Your task to perform on an android device: Open network settings Image 0: 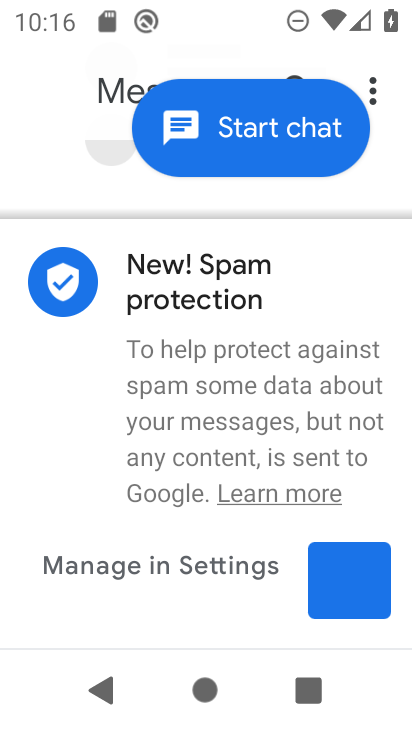
Step 0: press home button
Your task to perform on an android device: Open network settings Image 1: 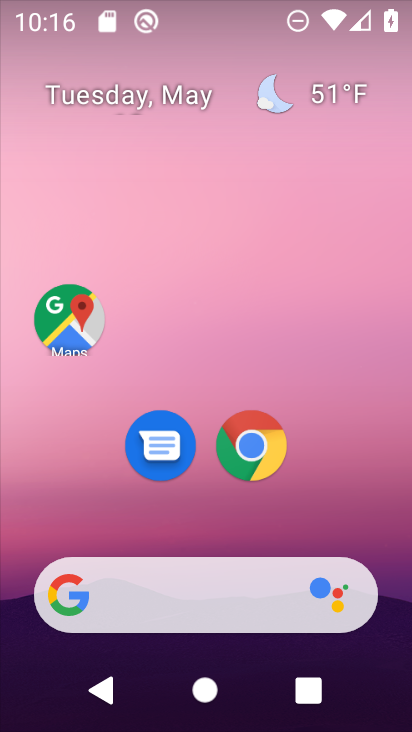
Step 1: drag from (146, 577) to (128, 178)
Your task to perform on an android device: Open network settings Image 2: 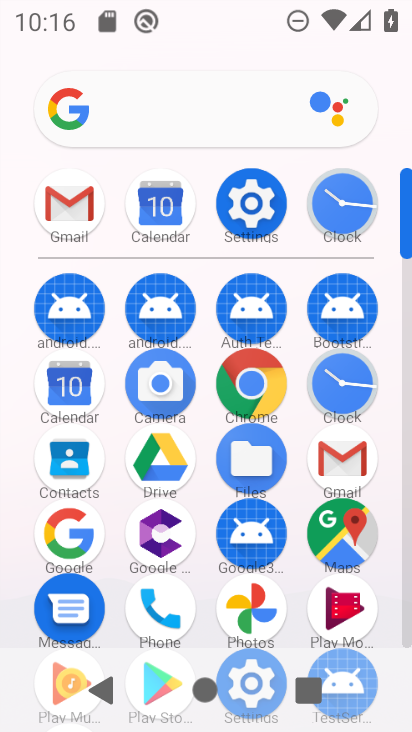
Step 2: click (259, 200)
Your task to perform on an android device: Open network settings Image 3: 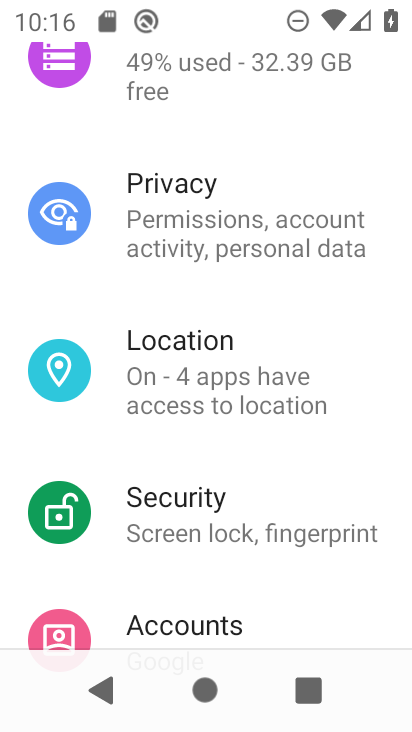
Step 3: drag from (259, 200) to (303, 445)
Your task to perform on an android device: Open network settings Image 4: 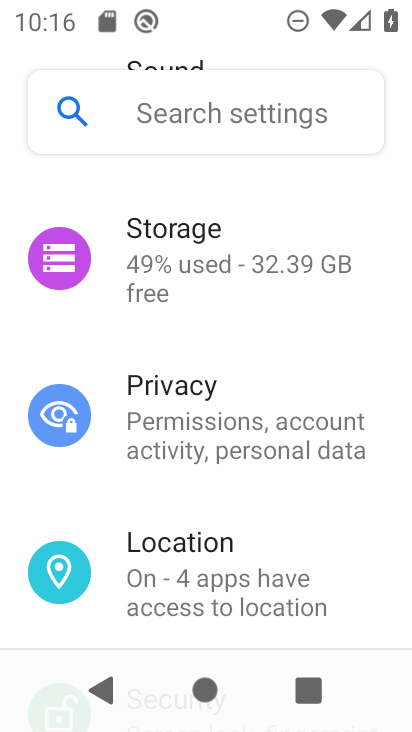
Step 4: drag from (231, 196) to (269, 606)
Your task to perform on an android device: Open network settings Image 5: 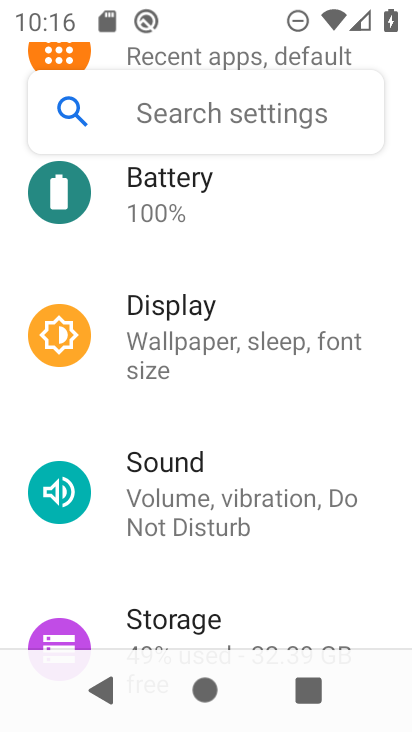
Step 5: drag from (233, 223) to (205, 656)
Your task to perform on an android device: Open network settings Image 6: 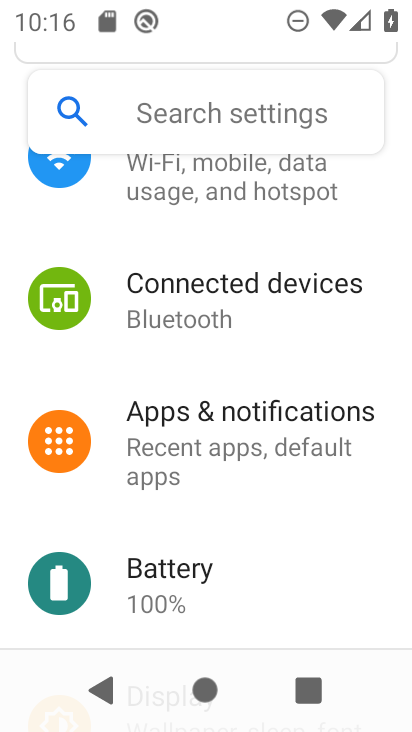
Step 6: drag from (176, 203) to (200, 387)
Your task to perform on an android device: Open network settings Image 7: 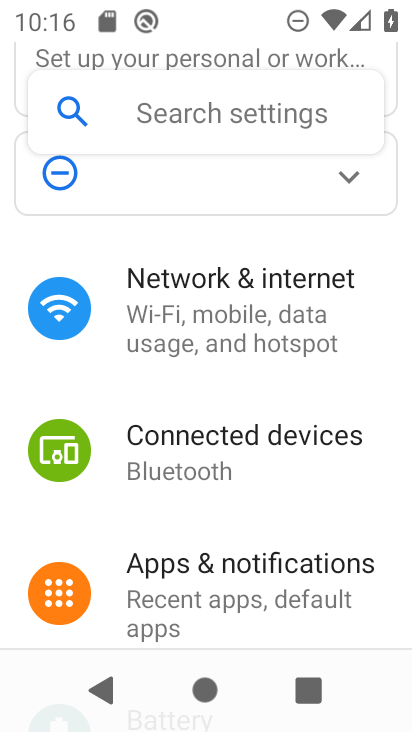
Step 7: click (194, 345)
Your task to perform on an android device: Open network settings Image 8: 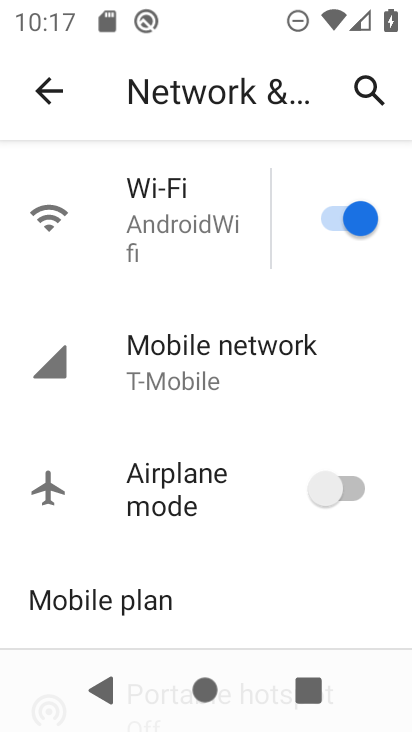
Step 8: task complete